Your task to perform on an android device: Go to internet settings Image 0: 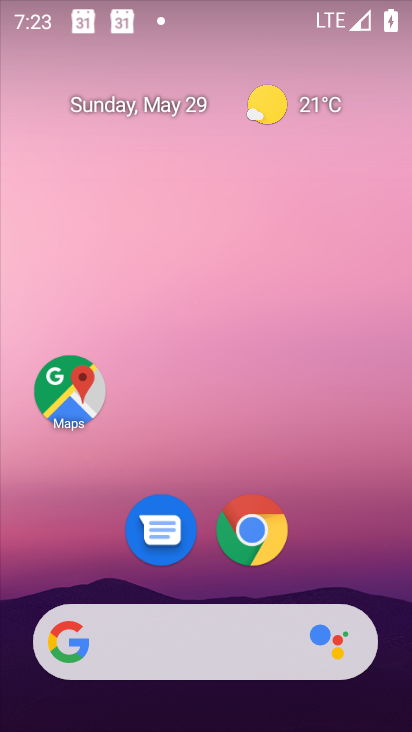
Step 0: drag from (264, 686) to (307, 128)
Your task to perform on an android device: Go to internet settings Image 1: 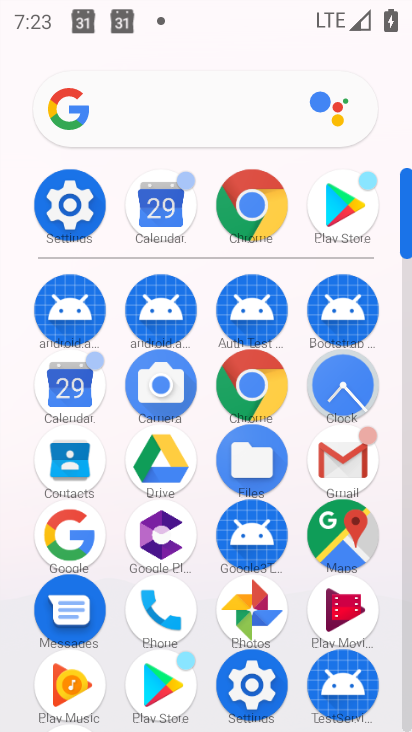
Step 1: click (58, 218)
Your task to perform on an android device: Go to internet settings Image 2: 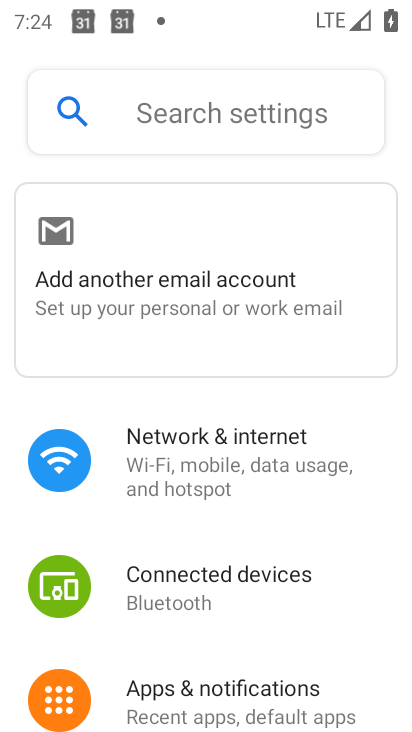
Step 2: click (194, 463)
Your task to perform on an android device: Go to internet settings Image 3: 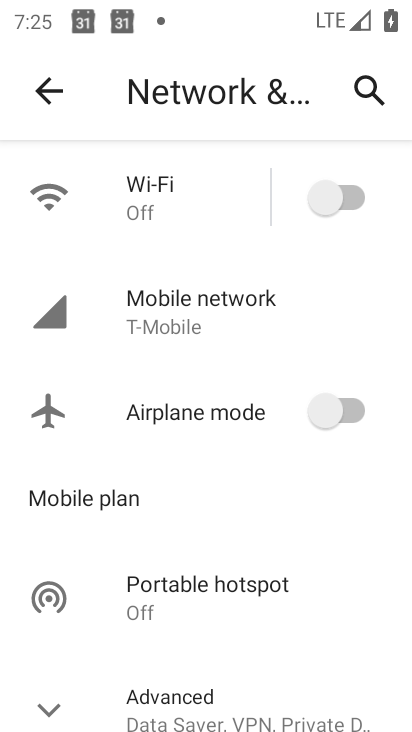
Step 3: task complete